Your task to perform on an android device: turn on the 24-hour format for clock Image 0: 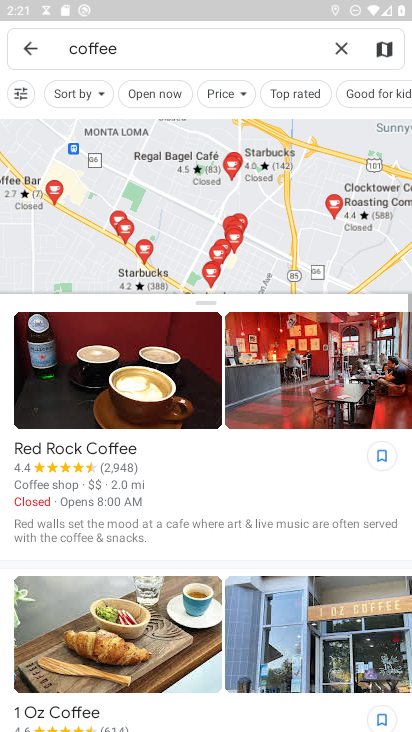
Step 0: press home button
Your task to perform on an android device: turn on the 24-hour format for clock Image 1: 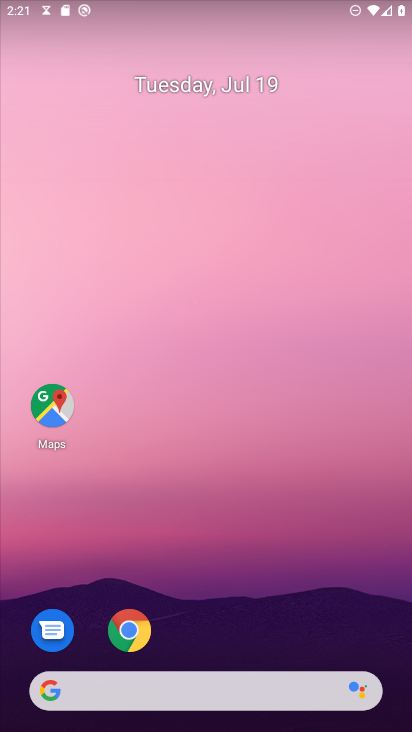
Step 1: drag from (222, 687) to (292, 166)
Your task to perform on an android device: turn on the 24-hour format for clock Image 2: 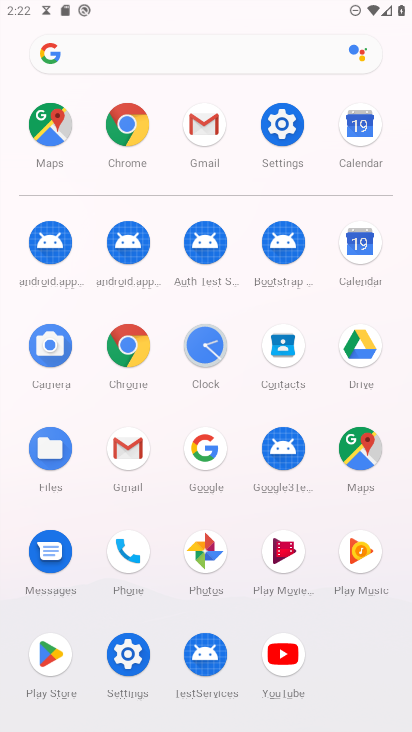
Step 2: click (195, 342)
Your task to perform on an android device: turn on the 24-hour format for clock Image 3: 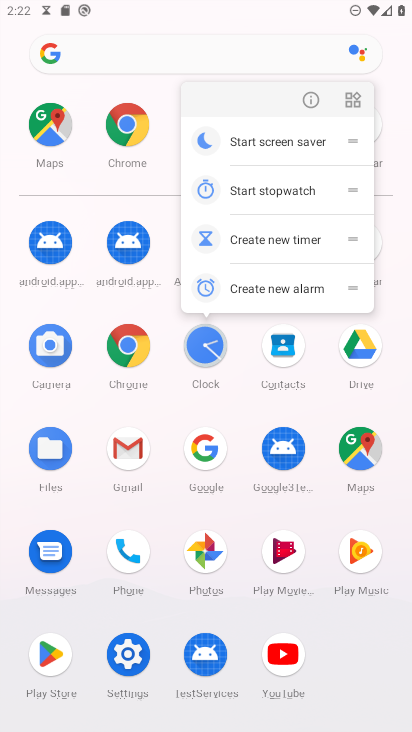
Step 3: click (205, 351)
Your task to perform on an android device: turn on the 24-hour format for clock Image 4: 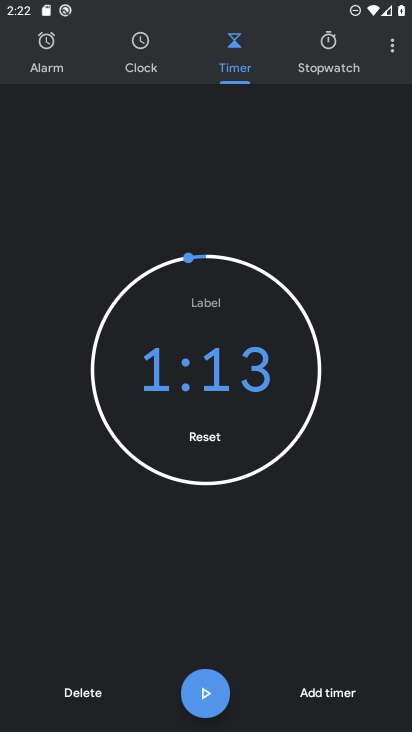
Step 4: click (394, 47)
Your task to perform on an android device: turn on the 24-hour format for clock Image 5: 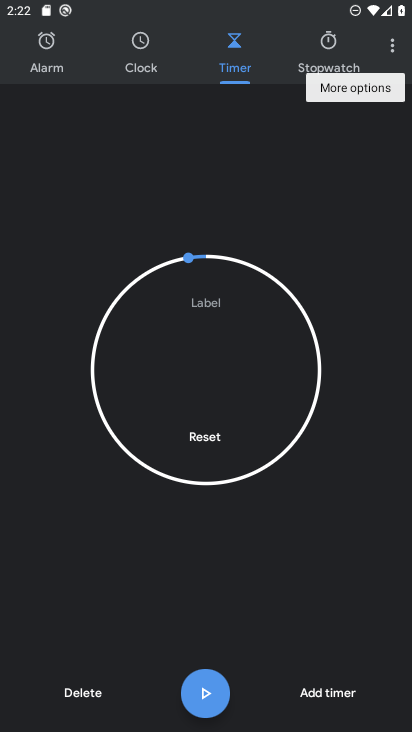
Step 5: click (393, 51)
Your task to perform on an android device: turn on the 24-hour format for clock Image 6: 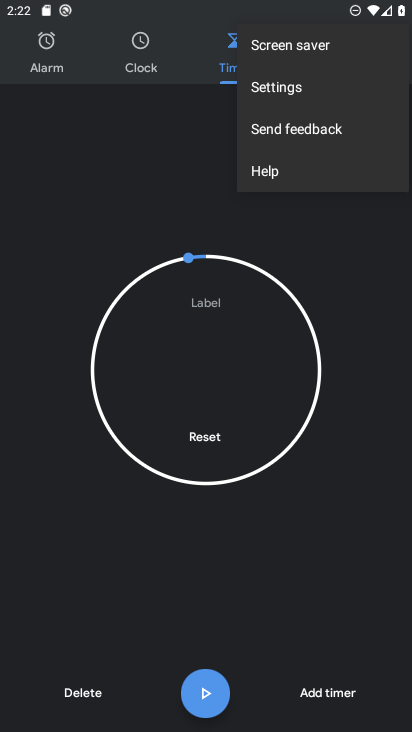
Step 6: click (301, 91)
Your task to perform on an android device: turn on the 24-hour format for clock Image 7: 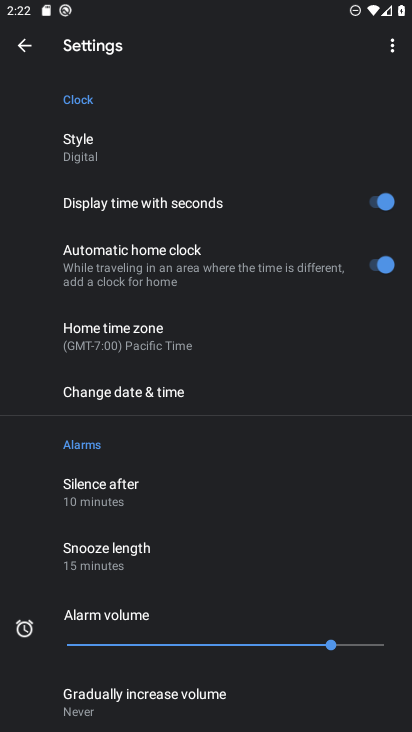
Step 7: click (152, 396)
Your task to perform on an android device: turn on the 24-hour format for clock Image 8: 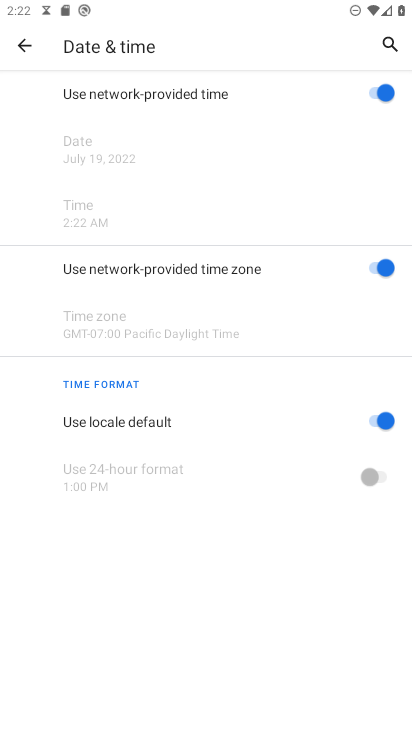
Step 8: click (374, 422)
Your task to perform on an android device: turn on the 24-hour format for clock Image 9: 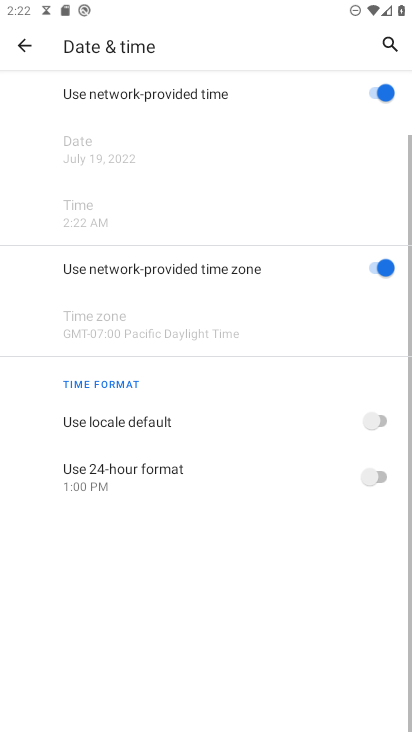
Step 9: click (382, 470)
Your task to perform on an android device: turn on the 24-hour format for clock Image 10: 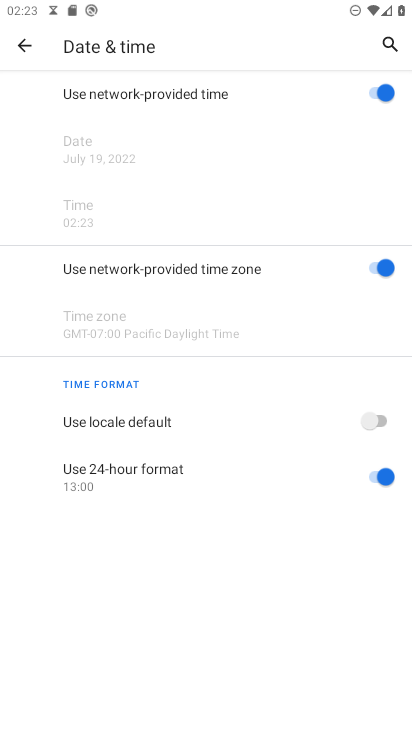
Step 10: task complete